Your task to perform on an android device: set default search engine in the chrome app Image 0: 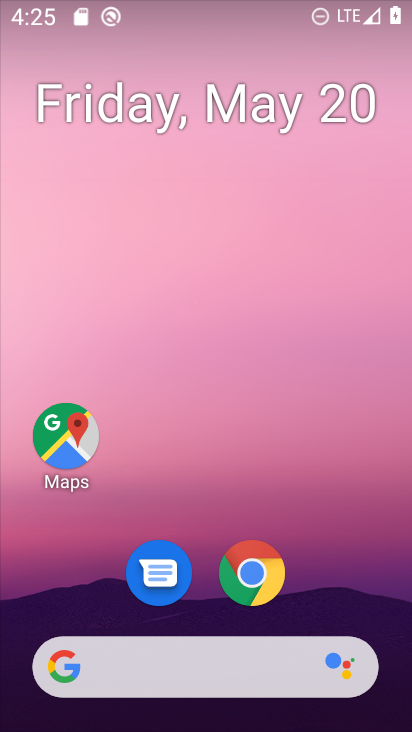
Step 0: click (252, 553)
Your task to perform on an android device: set default search engine in the chrome app Image 1: 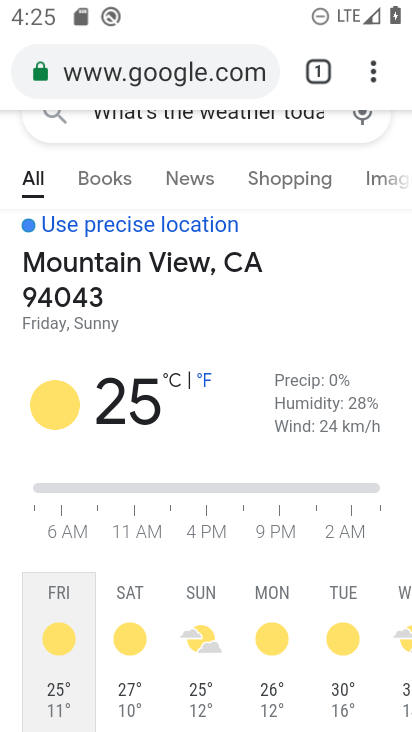
Step 1: click (376, 94)
Your task to perform on an android device: set default search engine in the chrome app Image 2: 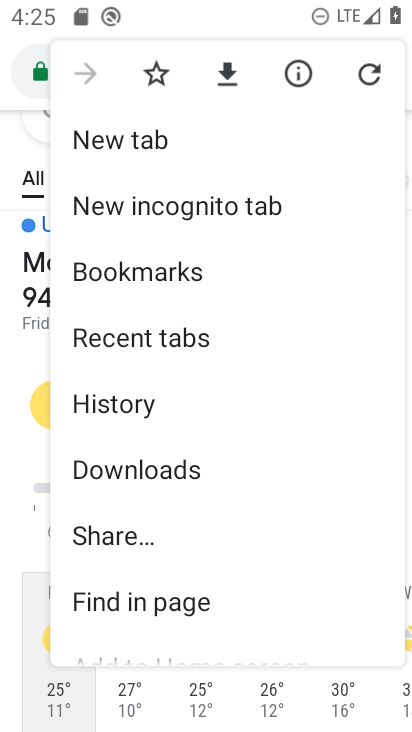
Step 2: drag from (245, 630) to (233, 235)
Your task to perform on an android device: set default search engine in the chrome app Image 3: 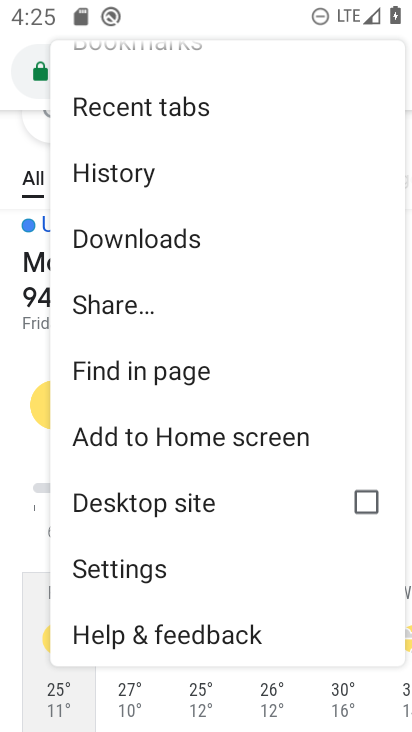
Step 3: click (240, 550)
Your task to perform on an android device: set default search engine in the chrome app Image 4: 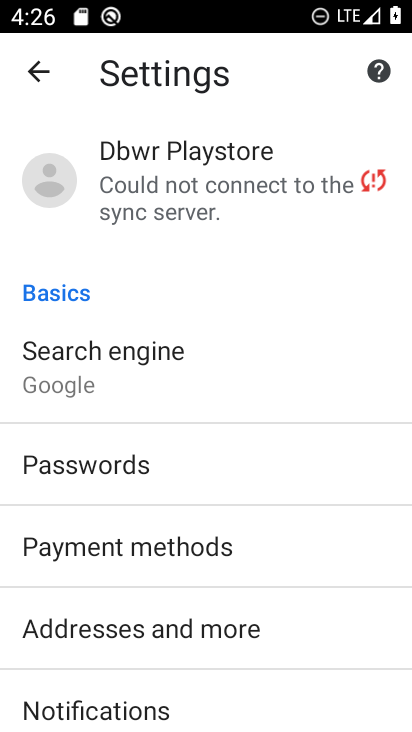
Step 4: click (219, 351)
Your task to perform on an android device: set default search engine in the chrome app Image 5: 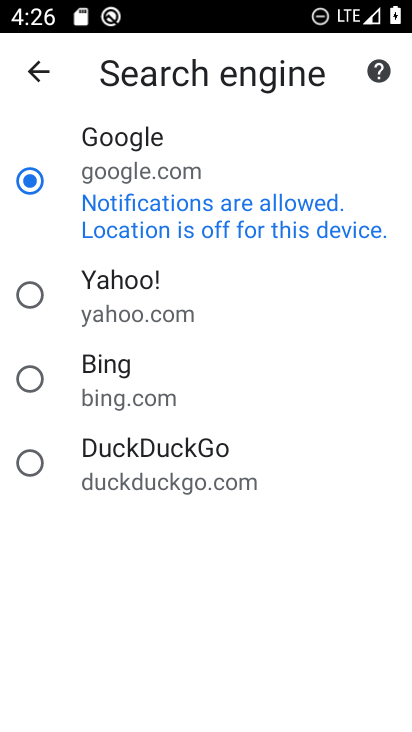
Step 5: click (200, 289)
Your task to perform on an android device: set default search engine in the chrome app Image 6: 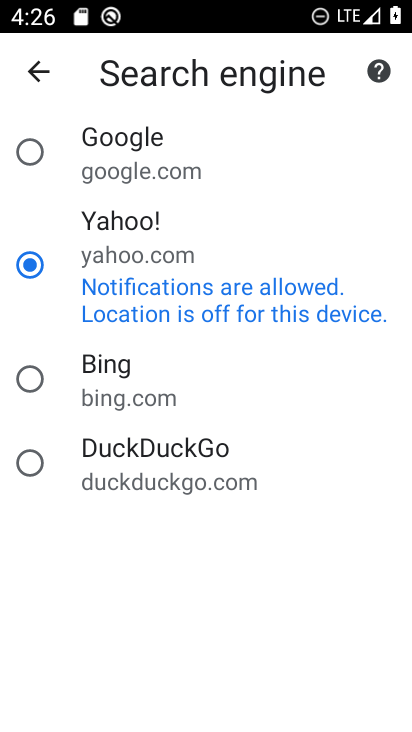
Step 6: task complete